Your task to perform on an android device: Open the web browser Image 0: 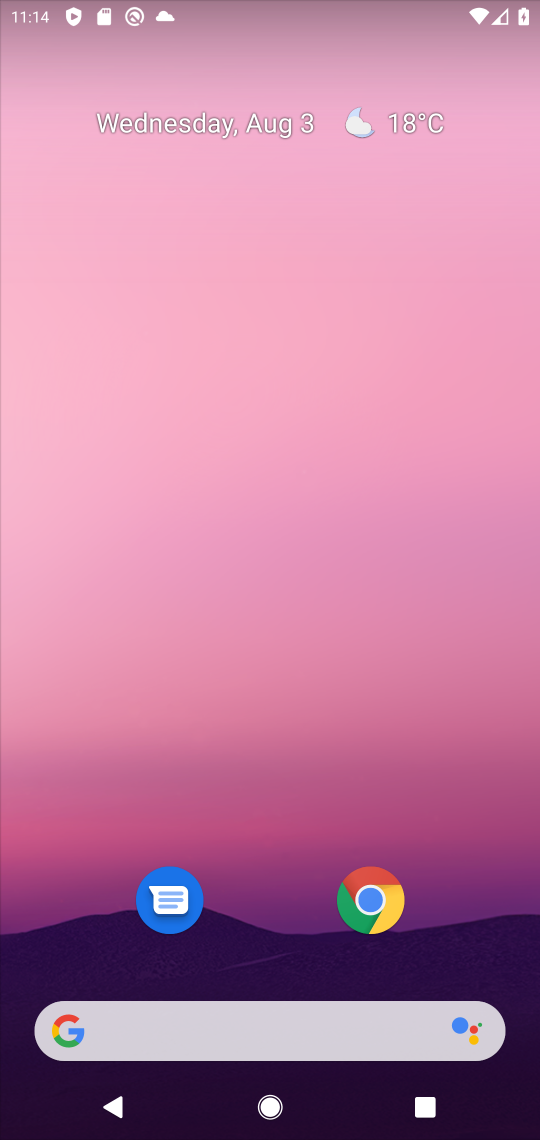
Step 0: click (69, 1035)
Your task to perform on an android device: Open the web browser Image 1: 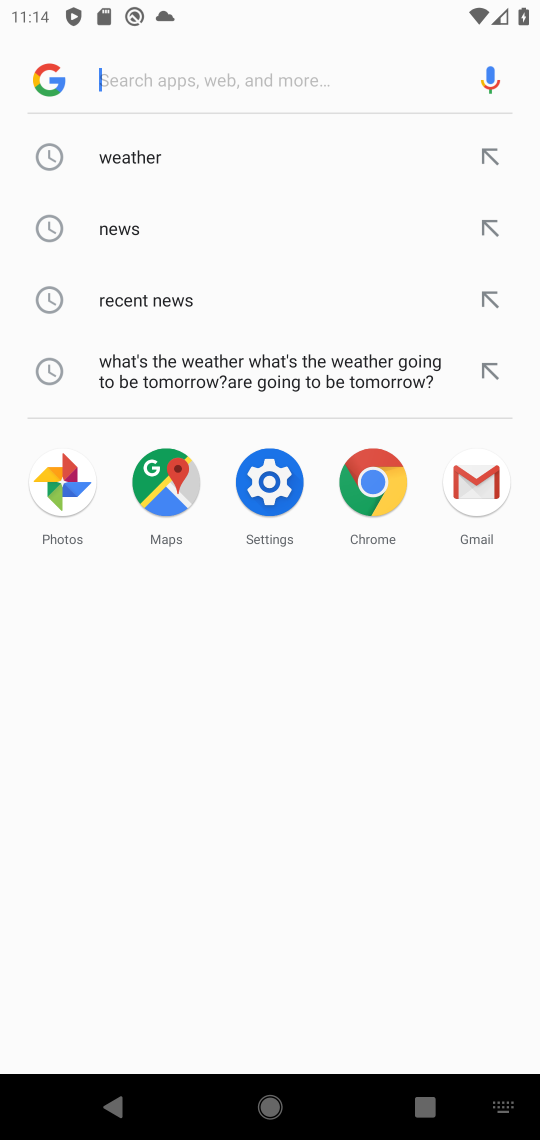
Step 1: click (38, 81)
Your task to perform on an android device: Open the web browser Image 2: 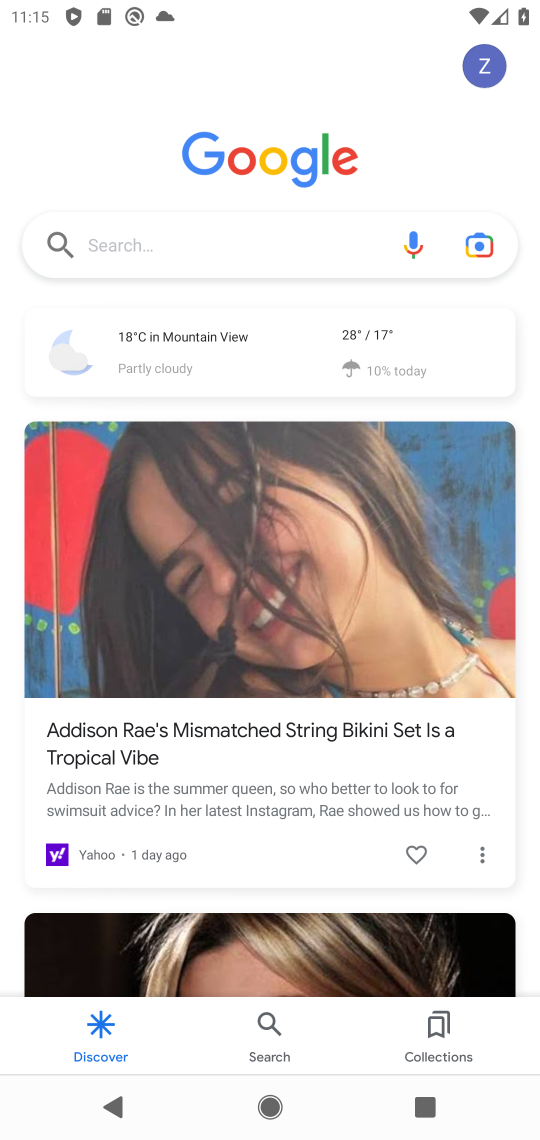
Step 2: task complete